Your task to perform on an android device: Search for flights from Seoul to Mexico city Image 0: 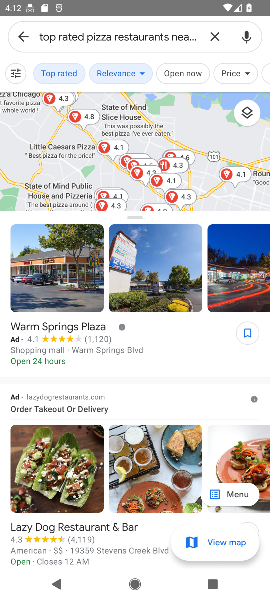
Step 0: press home button
Your task to perform on an android device: Search for flights from Seoul to Mexico city Image 1: 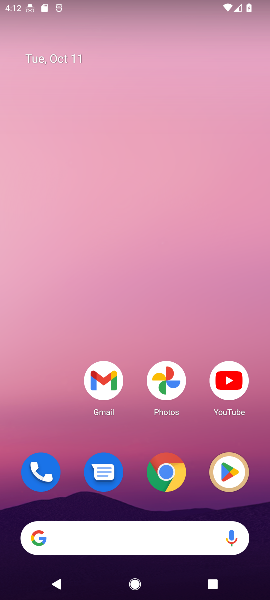
Step 1: click (179, 477)
Your task to perform on an android device: Search for flights from Seoul to Mexico city Image 2: 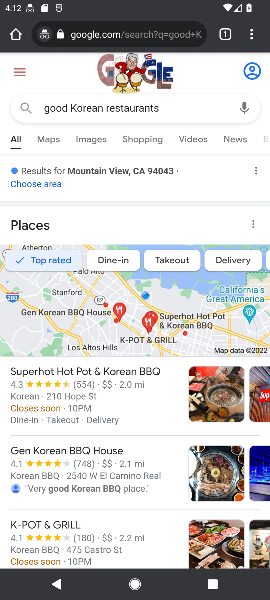
Step 2: click (87, 26)
Your task to perform on an android device: Search for flights from Seoul to Mexico city Image 3: 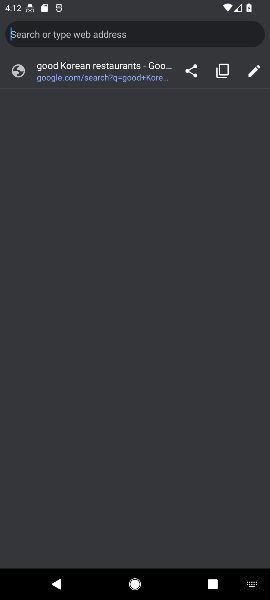
Step 3: type "flights from Seoul to Mexico city"
Your task to perform on an android device: Search for flights from Seoul to Mexico city Image 4: 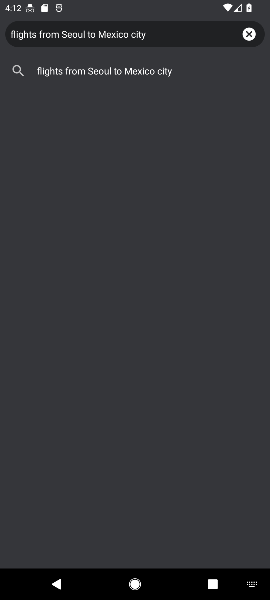
Step 4: click (134, 70)
Your task to perform on an android device: Search for flights from Seoul to Mexico city Image 5: 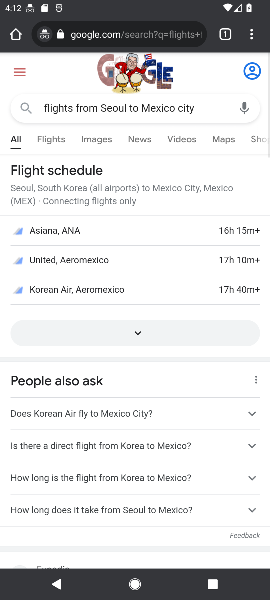
Step 5: click (48, 142)
Your task to perform on an android device: Search for flights from Seoul to Mexico city Image 6: 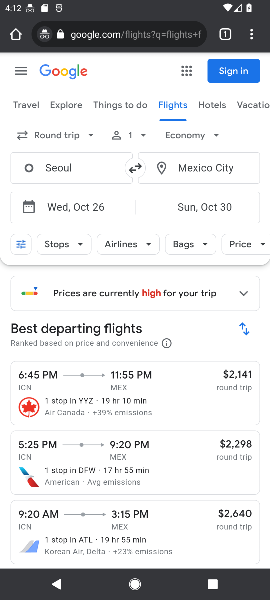
Step 6: task complete